Your task to perform on an android device: Clear the cart on target. Search for "acer nitro" on target, select the first entry, add it to the cart, then select checkout. Image 0: 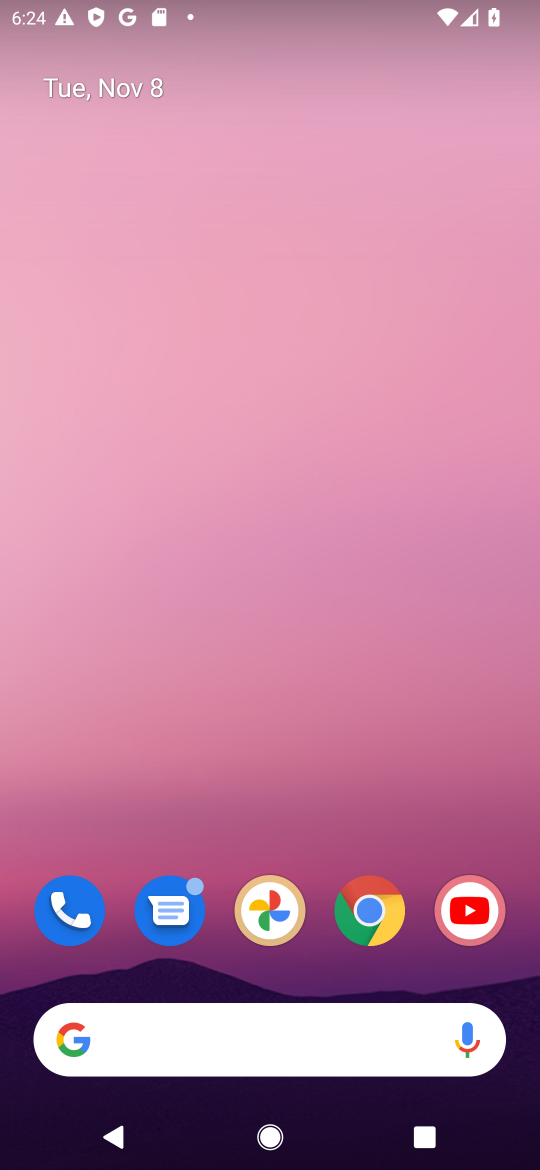
Step 0: click (363, 917)
Your task to perform on an android device: Clear the cart on target. Search for "acer nitro" on target, select the first entry, add it to the cart, then select checkout. Image 1: 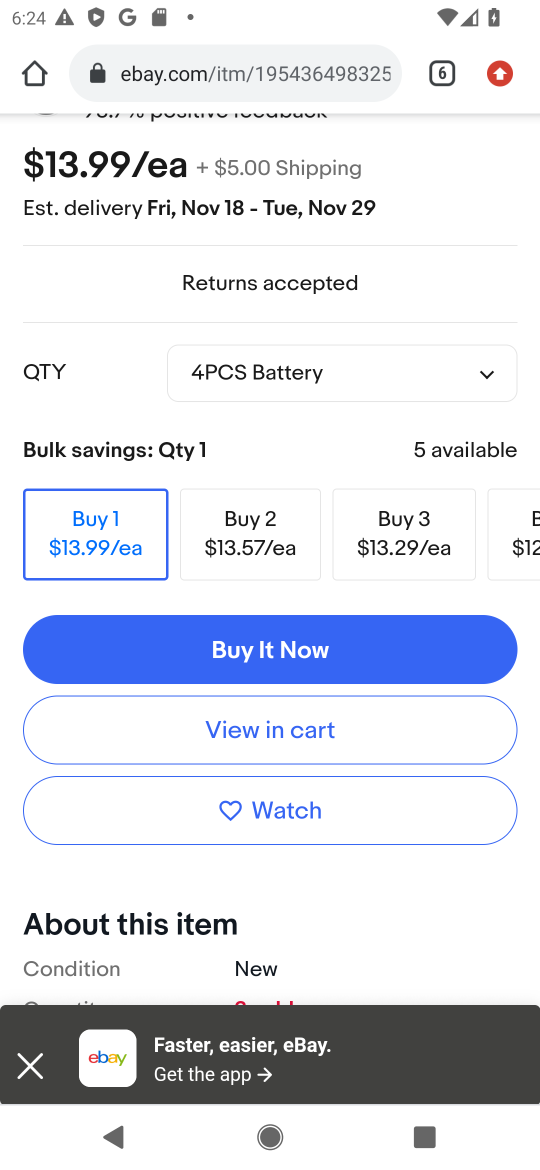
Step 1: click (447, 68)
Your task to perform on an android device: Clear the cart on target. Search for "acer nitro" on target, select the first entry, add it to the cart, then select checkout. Image 2: 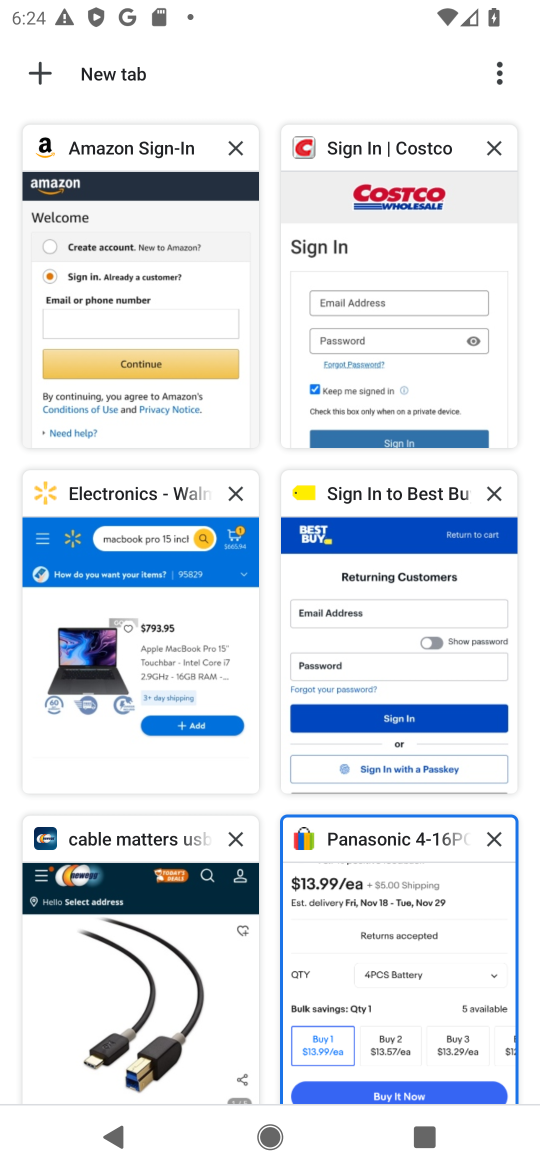
Step 2: click (37, 76)
Your task to perform on an android device: Clear the cart on target. Search for "acer nitro" on target, select the first entry, add it to the cart, then select checkout. Image 3: 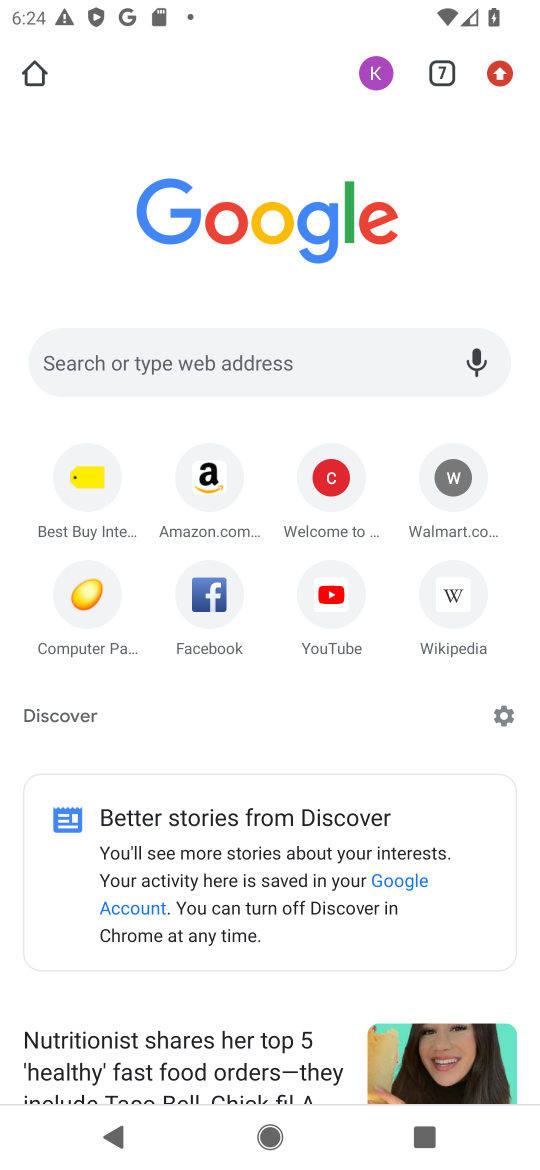
Step 3: click (227, 363)
Your task to perform on an android device: Clear the cart on target. Search for "acer nitro" on target, select the first entry, add it to the cart, then select checkout. Image 4: 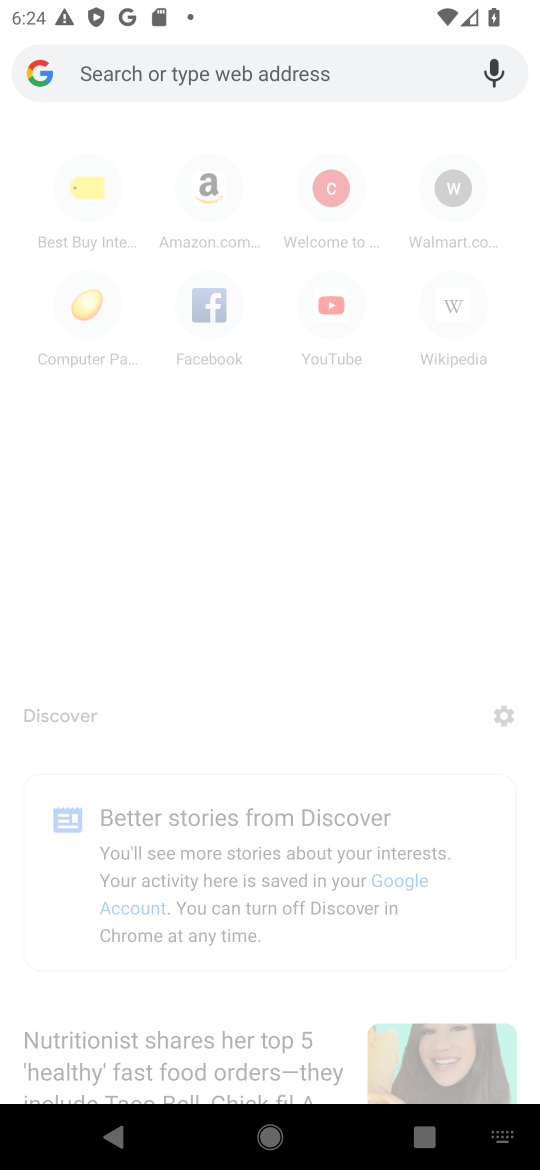
Step 4: type "target"
Your task to perform on an android device: Clear the cart on target. Search for "acer nitro" on target, select the first entry, add it to the cart, then select checkout. Image 5: 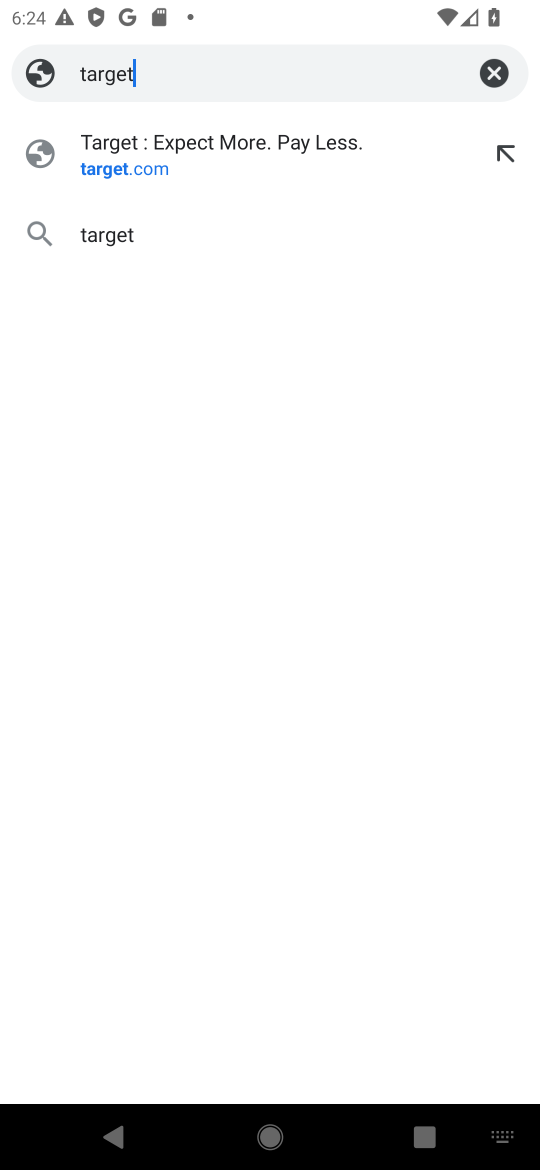
Step 5: click (134, 151)
Your task to perform on an android device: Clear the cart on target. Search for "acer nitro" on target, select the first entry, add it to the cart, then select checkout. Image 6: 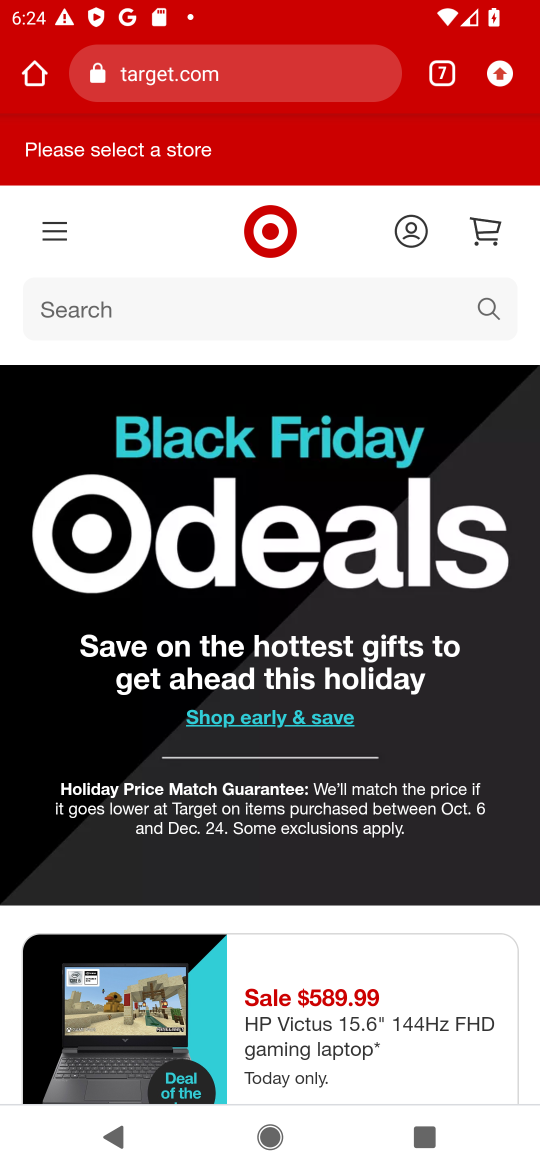
Step 6: click (176, 307)
Your task to perform on an android device: Clear the cart on target. Search for "acer nitro" on target, select the first entry, add it to the cart, then select checkout. Image 7: 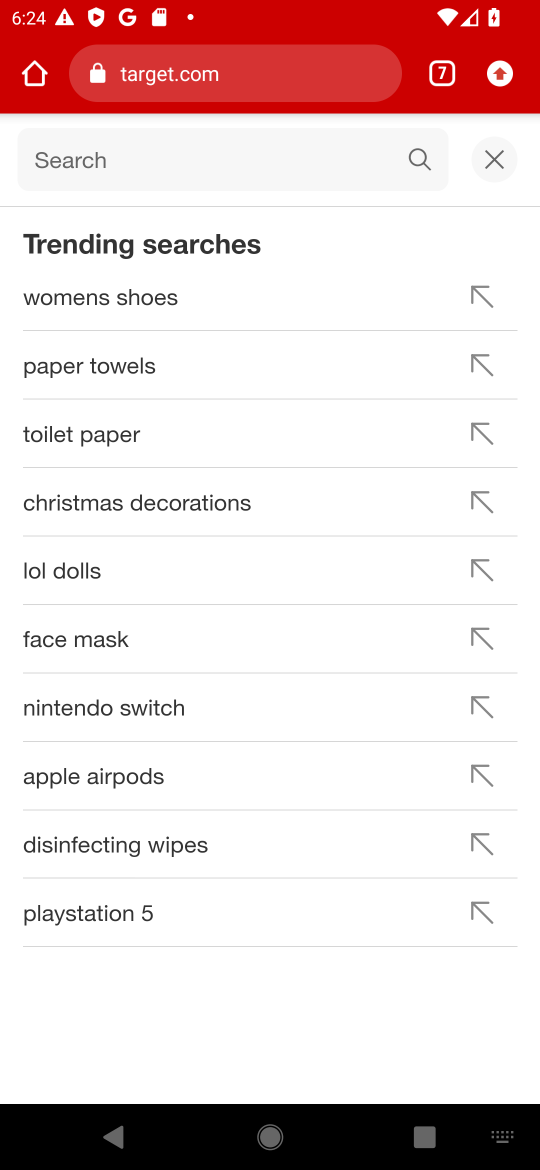
Step 7: type "acer nitro"
Your task to perform on an android device: Clear the cart on target. Search for "acer nitro" on target, select the first entry, add it to the cart, then select checkout. Image 8: 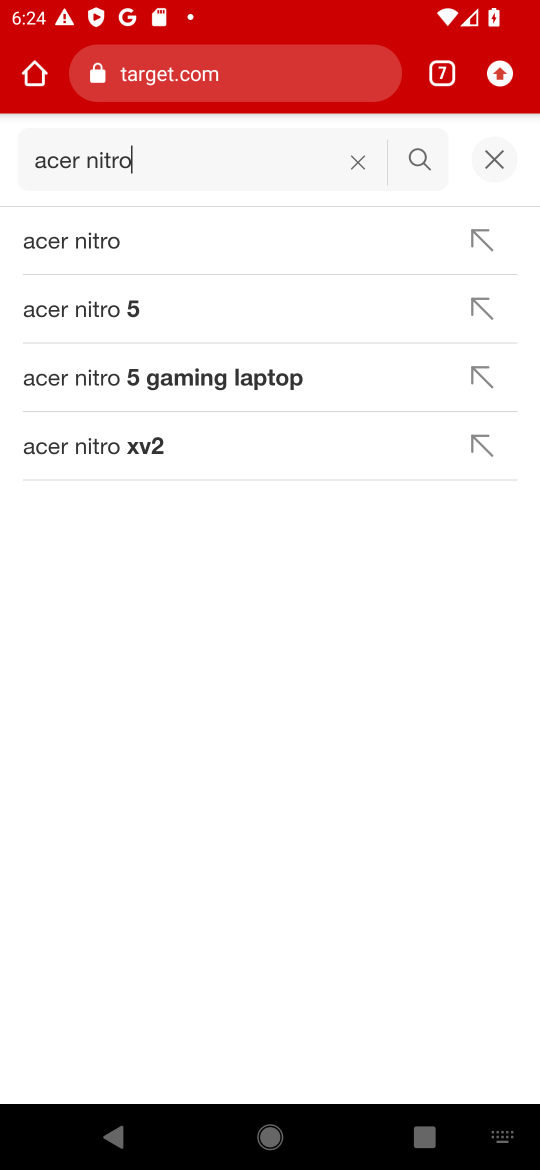
Step 8: click (414, 157)
Your task to perform on an android device: Clear the cart on target. Search for "acer nitro" on target, select the first entry, add it to the cart, then select checkout. Image 9: 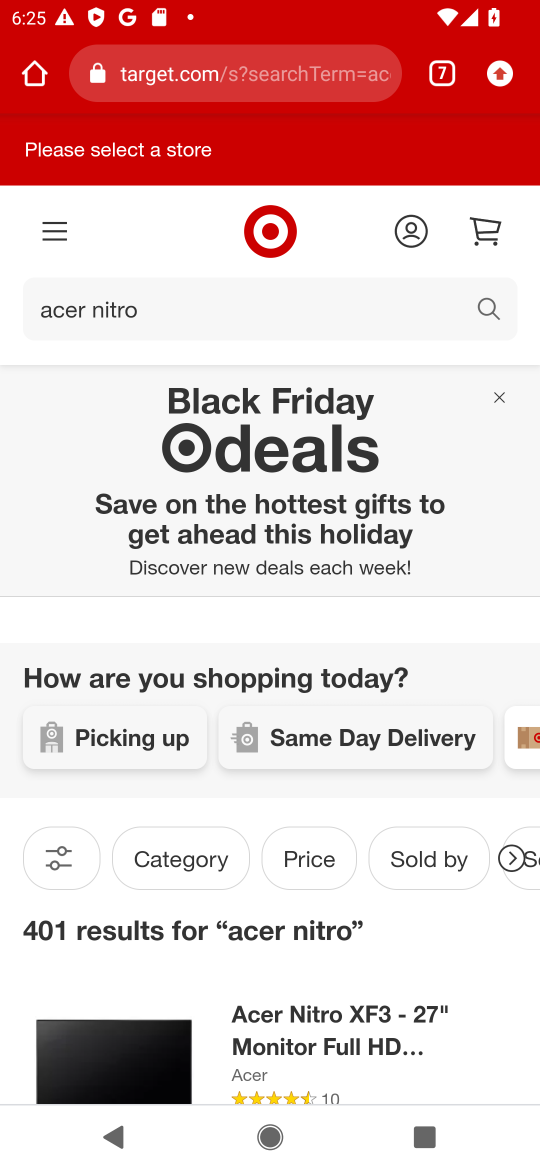
Step 9: drag from (241, 821) to (449, 81)
Your task to perform on an android device: Clear the cart on target. Search for "acer nitro" on target, select the first entry, add it to the cart, then select checkout. Image 10: 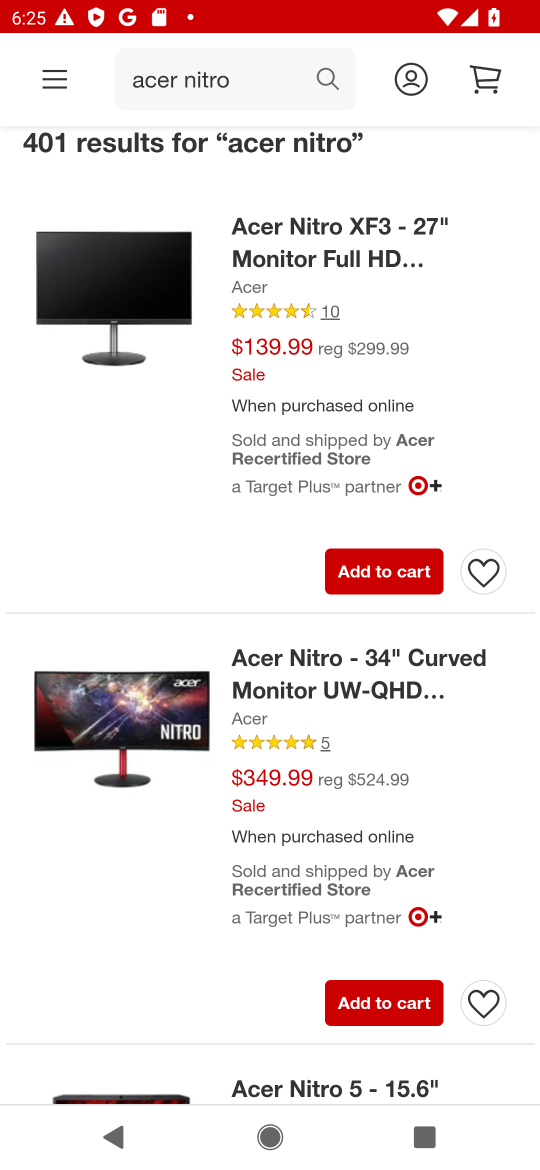
Step 10: click (381, 578)
Your task to perform on an android device: Clear the cart on target. Search for "acer nitro" on target, select the first entry, add it to the cart, then select checkout. Image 11: 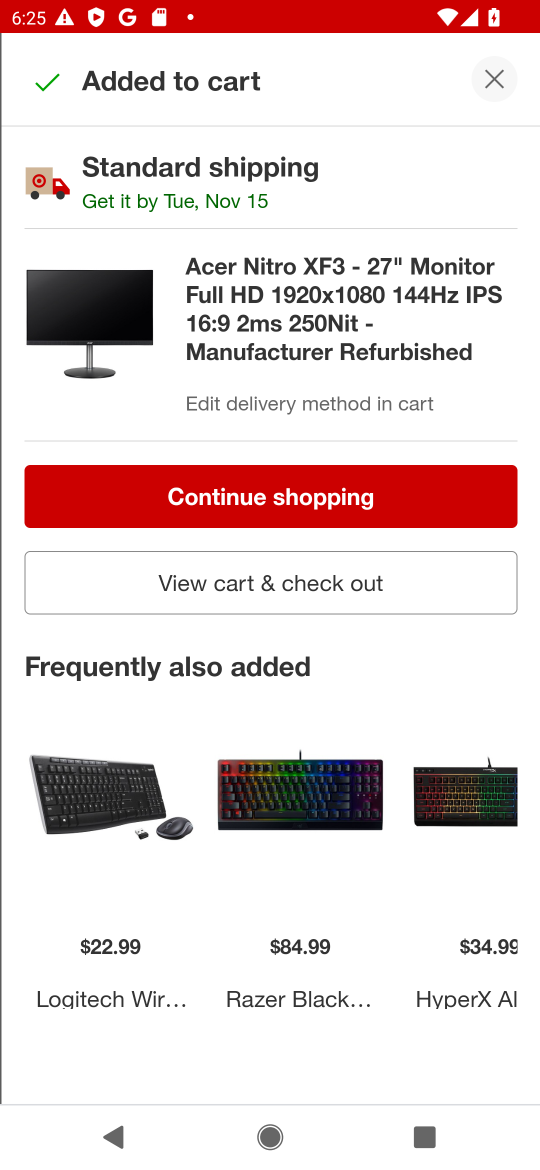
Step 11: task complete